Your task to perform on an android device: turn on data saver in the chrome app Image 0: 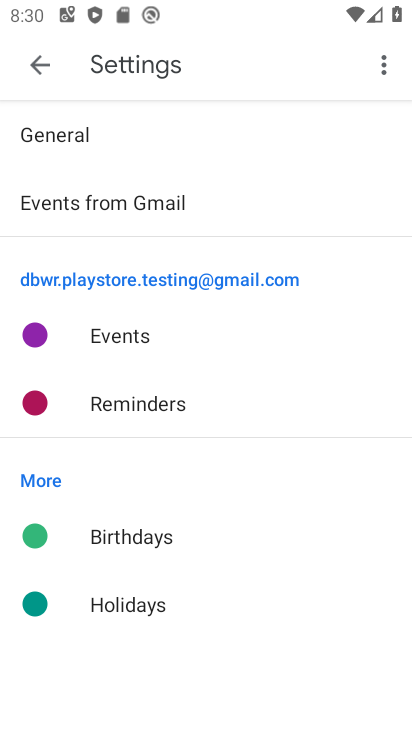
Step 0: drag from (250, 15) to (237, 481)
Your task to perform on an android device: turn on data saver in the chrome app Image 1: 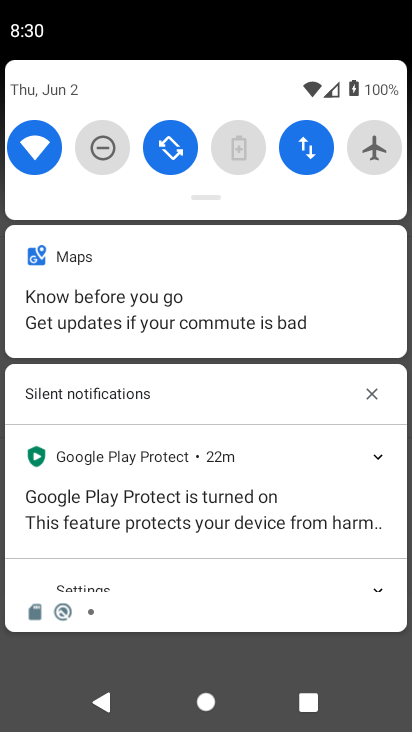
Step 1: press home button
Your task to perform on an android device: turn on data saver in the chrome app Image 2: 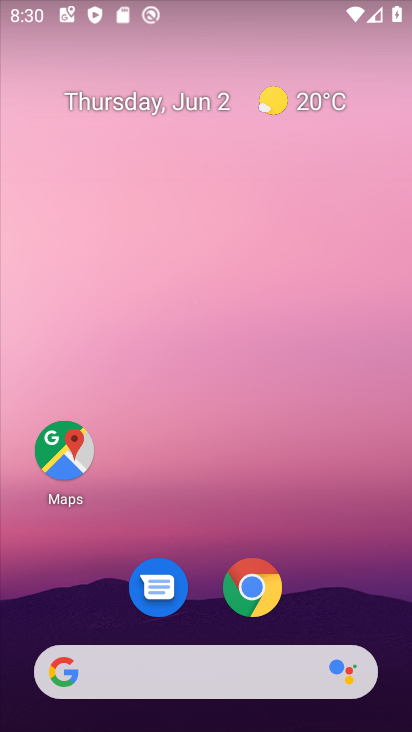
Step 2: click (252, 589)
Your task to perform on an android device: turn on data saver in the chrome app Image 3: 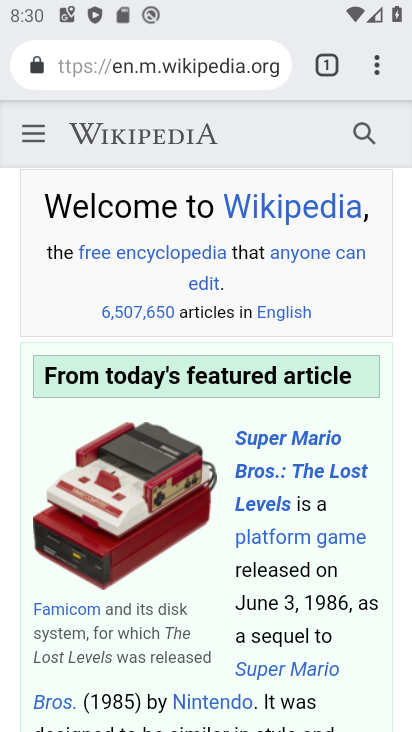
Step 3: click (381, 69)
Your task to perform on an android device: turn on data saver in the chrome app Image 4: 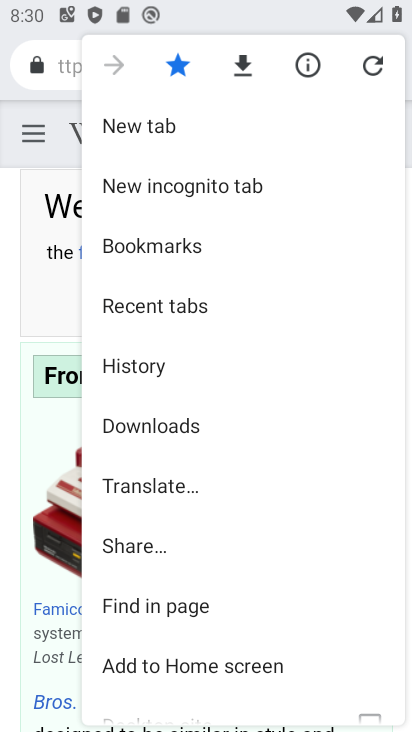
Step 4: drag from (136, 647) to (246, 71)
Your task to perform on an android device: turn on data saver in the chrome app Image 5: 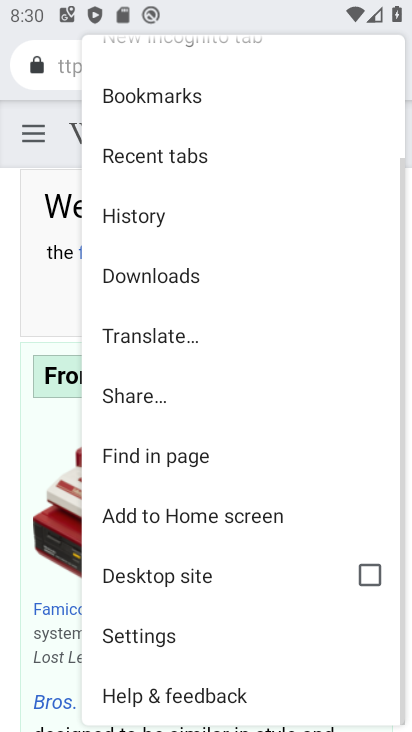
Step 5: click (112, 643)
Your task to perform on an android device: turn on data saver in the chrome app Image 6: 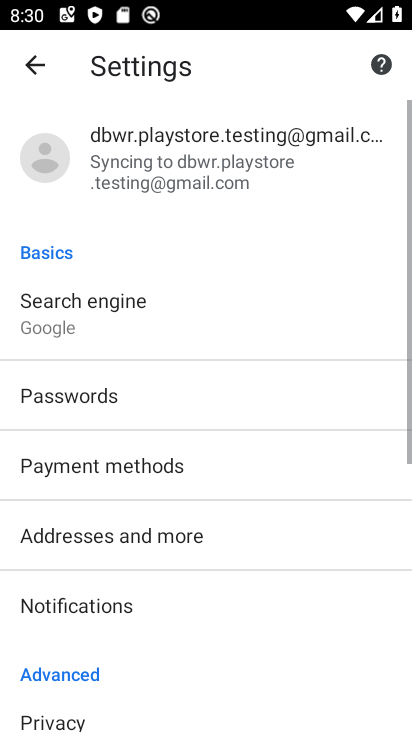
Step 6: drag from (157, 668) to (281, 166)
Your task to perform on an android device: turn on data saver in the chrome app Image 7: 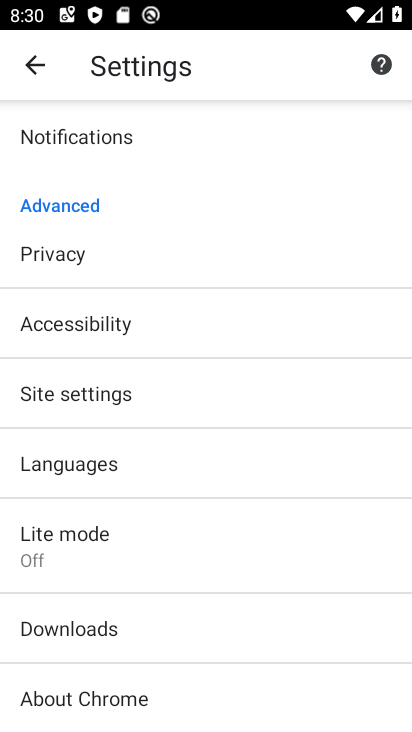
Step 7: click (69, 585)
Your task to perform on an android device: turn on data saver in the chrome app Image 8: 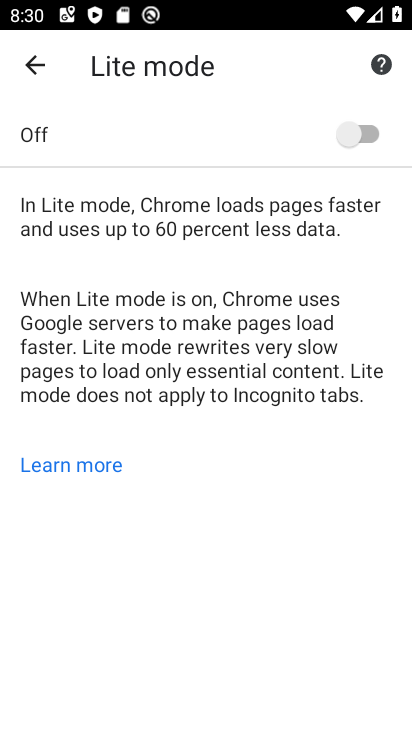
Step 8: click (375, 133)
Your task to perform on an android device: turn on data saver in the chrome app Image 9: 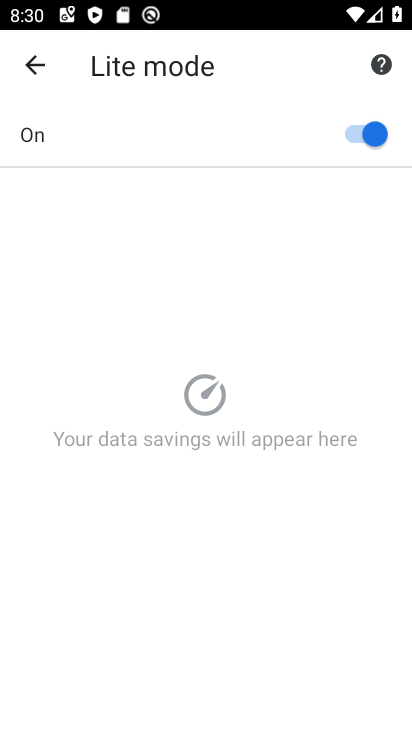
Step 9: task complete